Your task to perform on an android device: clear history in the chrome app Image 0: 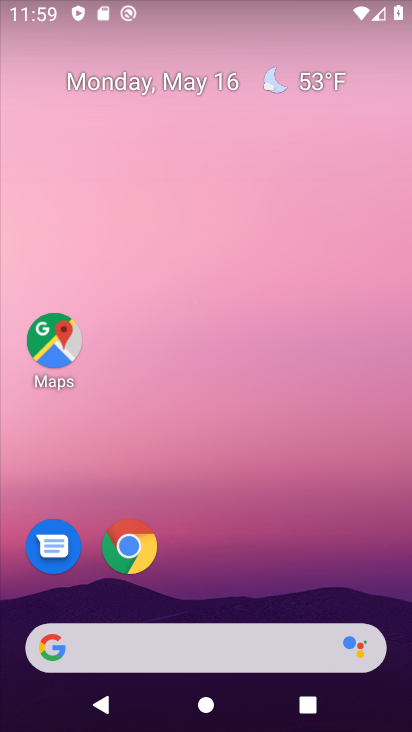
Step 0: press home button
Your task to perform on an android device: clear history in the chrome app Image 1: 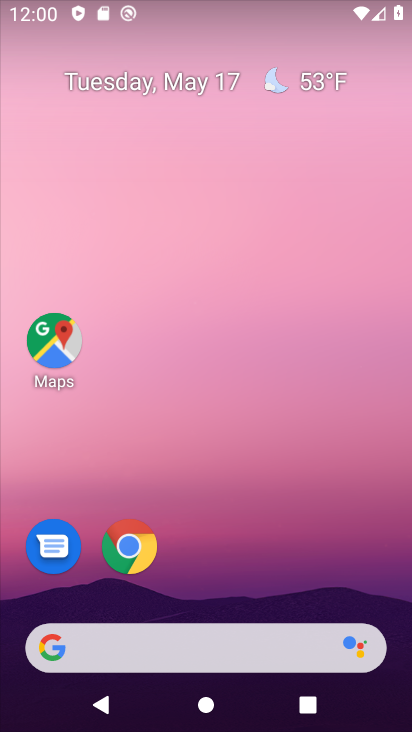
Step 1: click (129, 561)
Your task to perform on an android device: clear history in the chrome app Image 2: 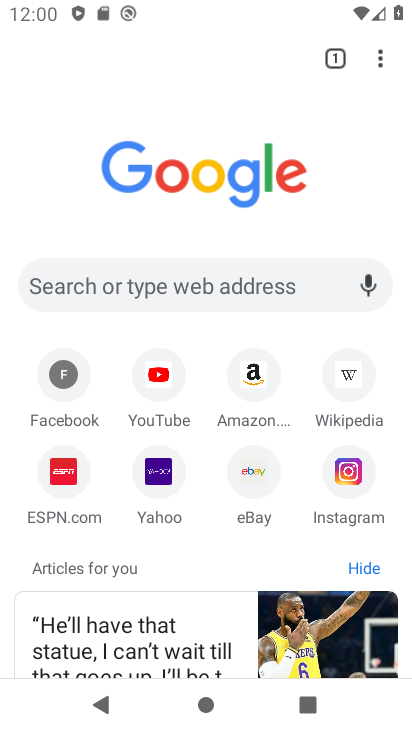
Step 2: task complete